Your task to perform on an android device: Open Wikipedia Image 0: 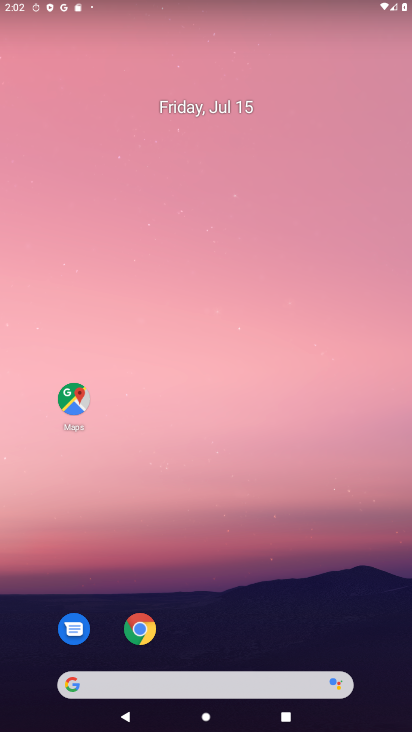
Step 0: click (144, 636)
Your task to perform on an android device: Open Wikipedia Image 1: 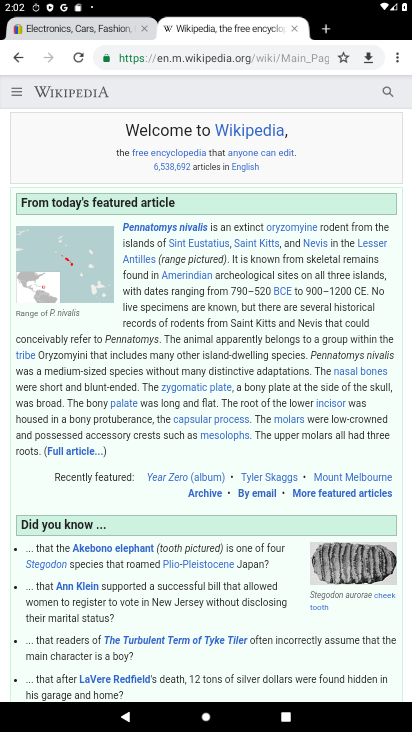
Step 1: task complete